Your task to perform on an android device: check google app version Image 0: 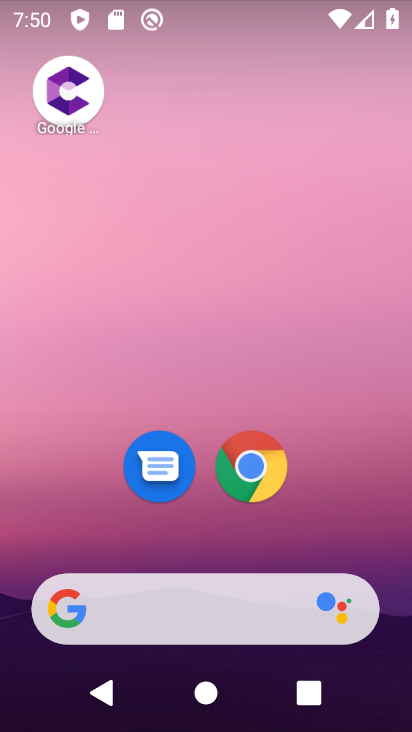
Step 0: drag from (351, 552) to (306, 0)
Your task to perform on an android device: check google app version Image 1: 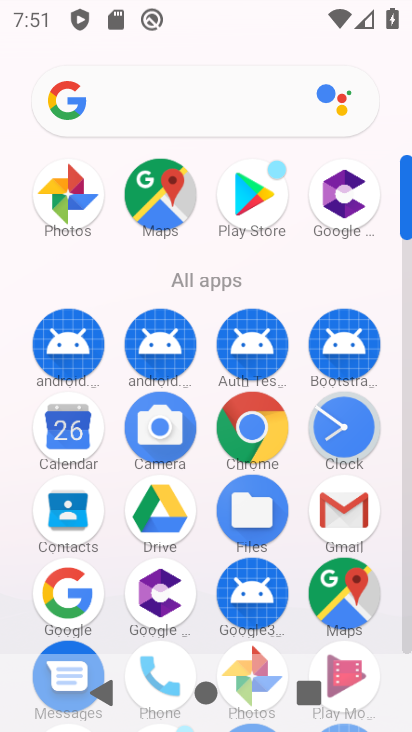
Step 1: click (73, 596)
Your task to perform on an android device: check google app version Image 2: 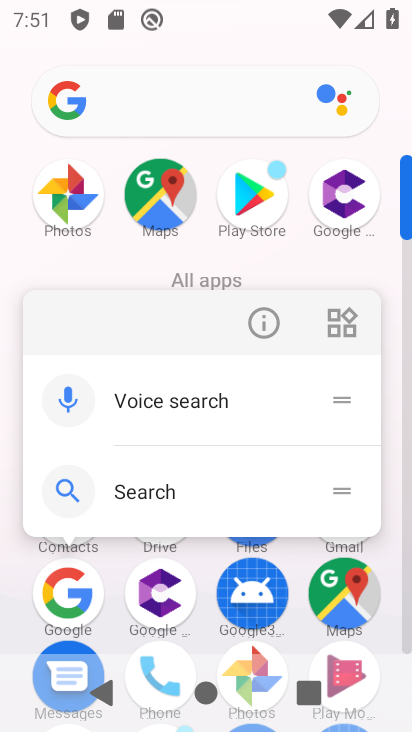
Step 2: click (257, 325)
Your task to perform on an android device: check google app version Image 3: 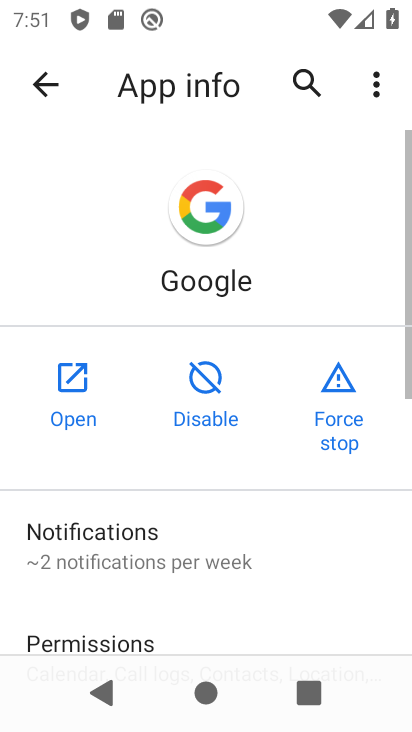
Step 3: drag from (264, 554) to (261, 145)
Your task to perform on an android device: check google app version Image 4: 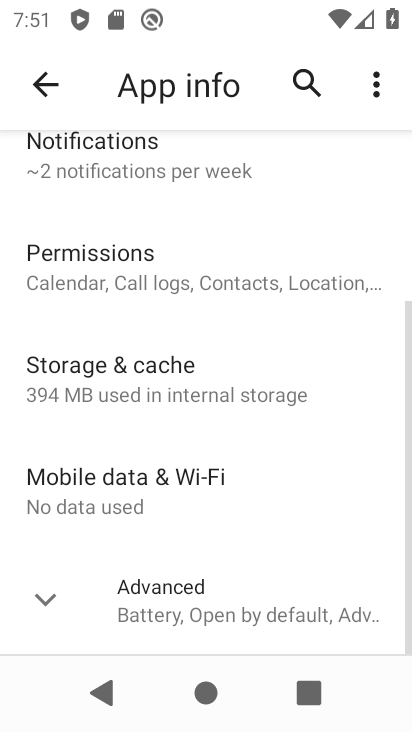
Step 4: drag from (230, 512) to (227, 157)
Your task to perform on an android device: check google app version Image 5: 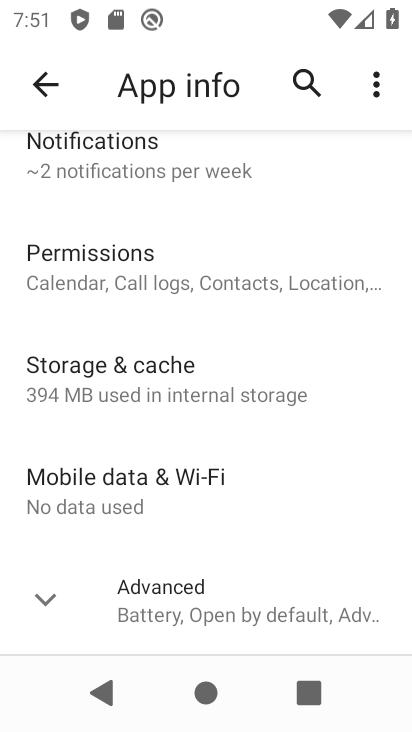
Step 5: click (46, 603)
Your task to perform on an android device: check google app version Image 6: 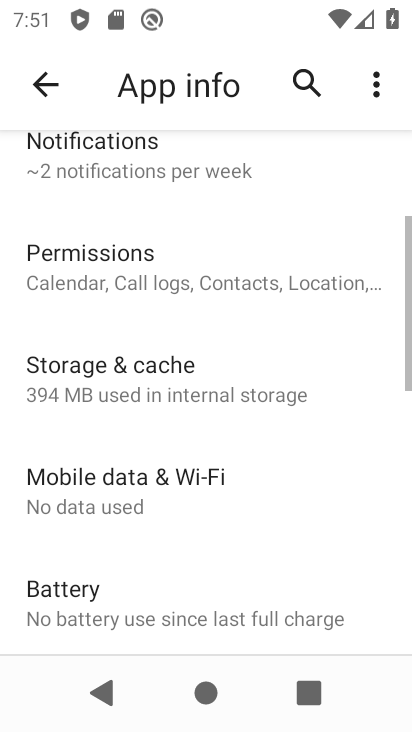
Step 6: task complete